Your task to perform on an android device: Add razer naga to the cart on bestbuy, then select checkout. Image 0: 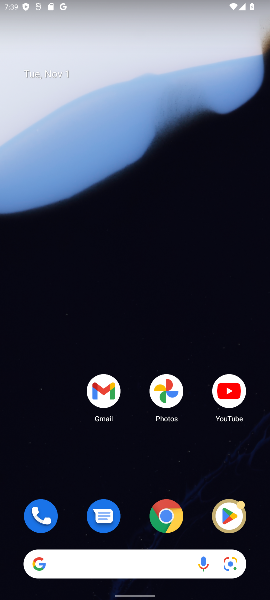
Step 0: press home button
Your task to perform on an android device: Add razer naga to the cart on bestbuy, then select checkout. Image 1: 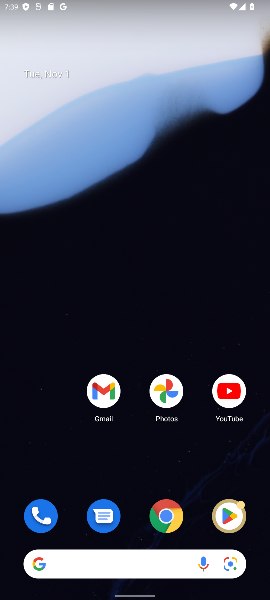
Step 1: drag from (137, 488) to (134, 48)
Your task to perform on an android device: Add razer naga to the cart on bestbuy, then select checkout. Image 2: 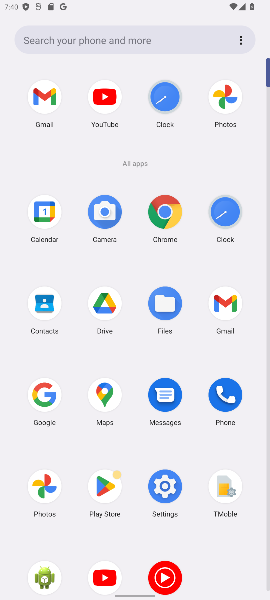
Step 2: click (171, 208)
Your task to perform on an android device: Add razer naga to the cart on bestbuy, then select checkout. Image 3: 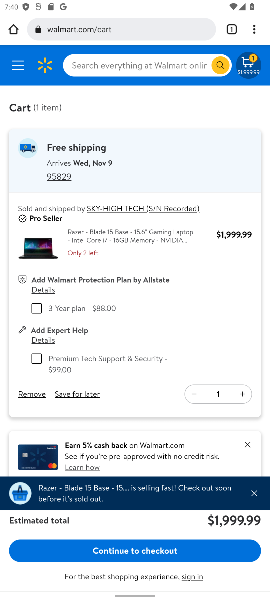
Step 3: click (93, 24)
Your task to perform on an android device: Add razer naga to the cart on bestbuy, then select checkout. Image 4: 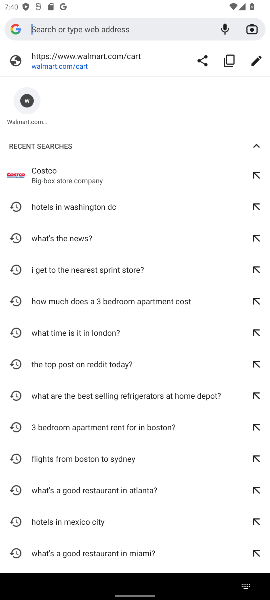
Step 4: type "bestbuy"
Your task to perform on an android device: Add razer naga to the cart on bestbuy, then select checkout. Image 5: 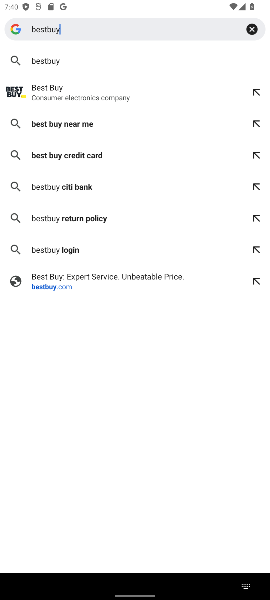
Step 5: click (55, 60)
Your task to perform on an android device: Add razer naga to the cart on bestbuy, then select checkout. Image 6: 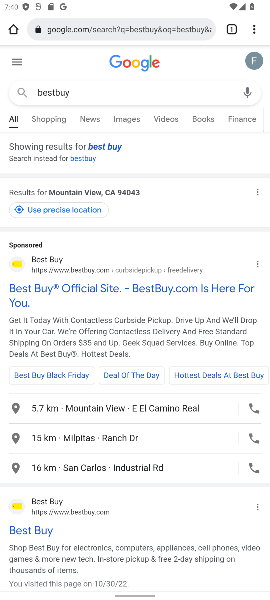
Step 6: click (78, 286)
Your task to perform on an android device: Add razer naga to the cart on bestbuy, then select checkout. Image 7: 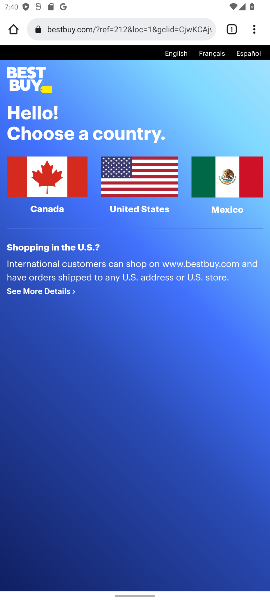
Step 7: click (127, 183)
Your task to perform on an android device: Add razer naga to the cart on bestbuy, then select checkout. Image 8: 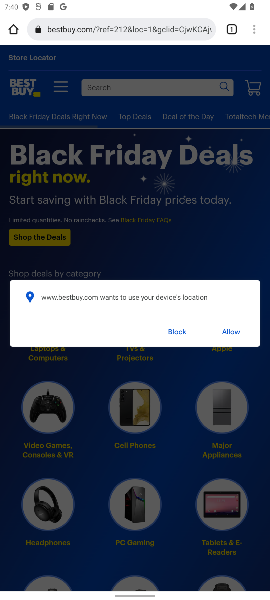
Step 8: click (229, 329)
Your task to perform on an android device: Add razer naga to the cart on bestbuy, then select checkout. Image 9: 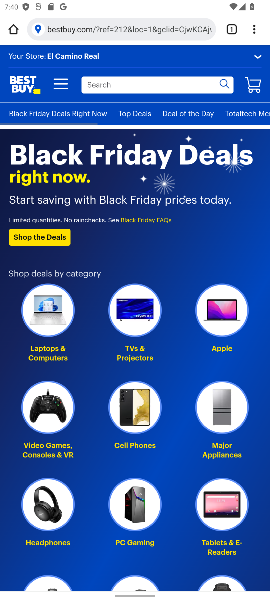
Step 9: click (110, 86)
Your task to perform on an android device: Add razer naga to the cart on bestbuy, then select checkout. Image 10: 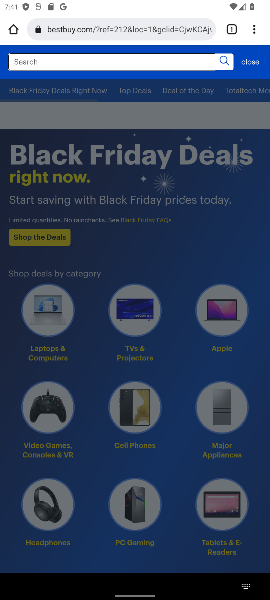
Step 10: type "razer naga"
Your task to perform on an android device: Add razer naga to the cart on bestbuy, then select checkout. Image 11: 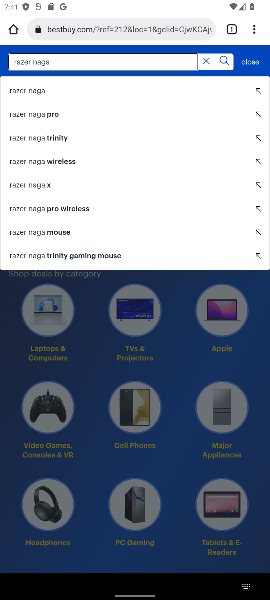
Step 11: click (44, 90)
Your task to perform on an android device: Add razer naga to the cart on bestbuy, then select checkout. Image 12: 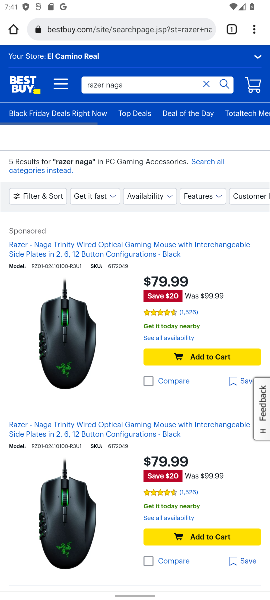
Step 12: click (107, 249)
Your task to perform on an android device: Add razer naga to the cart on bestbuy, then select checkout. Image 13: 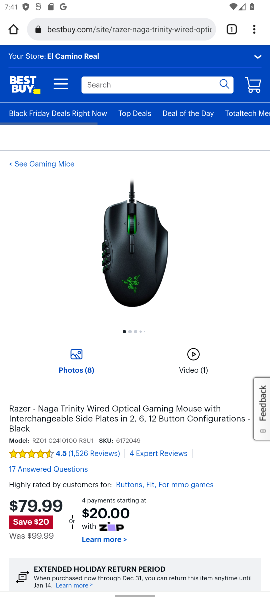
Step 13: drag from (153, 542) to (178, 266)
Your task to perform on an android device: Add razer naga to the cart on bestbuy, then select checkout. Image 14: 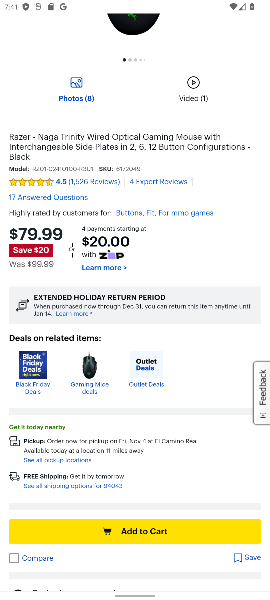
Step 14: click (129, 527)
Your task to perform on an android device: Add razer naga to the cart on bestbuy, then select checkout. Image 15: 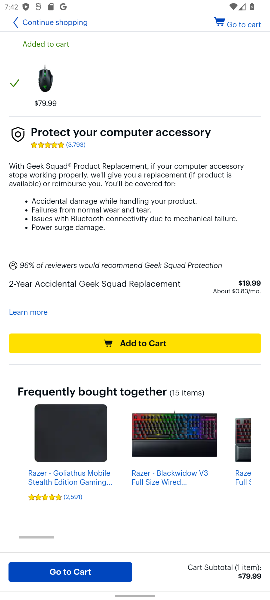
Step 15: click (65, 576)
Your task to perform on an android device: Add razer naga to the cart on bestbuy, then select checkout. Image 16: 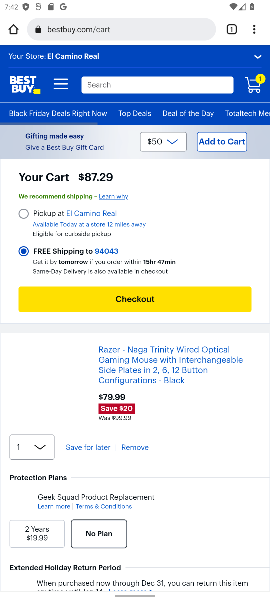
Step 16: click (255, 80)
Your task to perform on an android device: Add razer naga to the cart on bestbuy, then select checkout. Image 17: 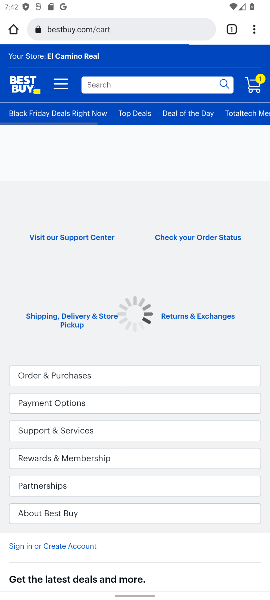
Step 17: click (123, 300)
Your task to perform on an android device: Add razer naga to the cart on bestbuy, then select checkout. Image 18: 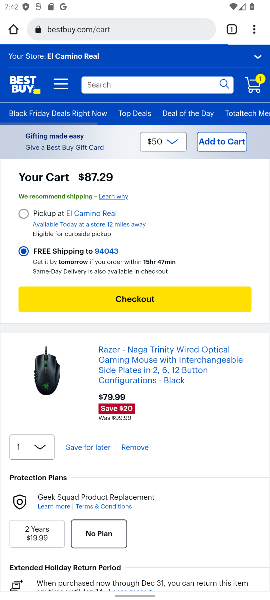
Step 18: click (100, 297)
Your task to perform on an android device: Add razer naga to the cart on bestbuy, then select checkout. Image 19: 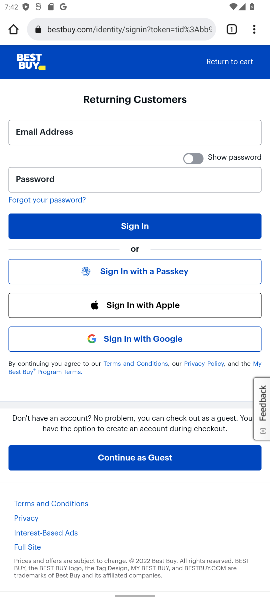
Step 19: task complete